Your task to perform on an android device: turn off airplane mode Image 0: 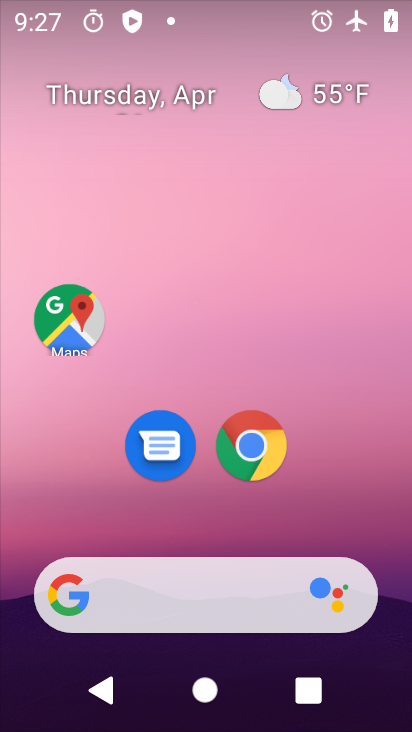
Step 0: drag from (372, 508) to (365, 5)
Your task to perform on an android device: turn off airplane mode Image 1: 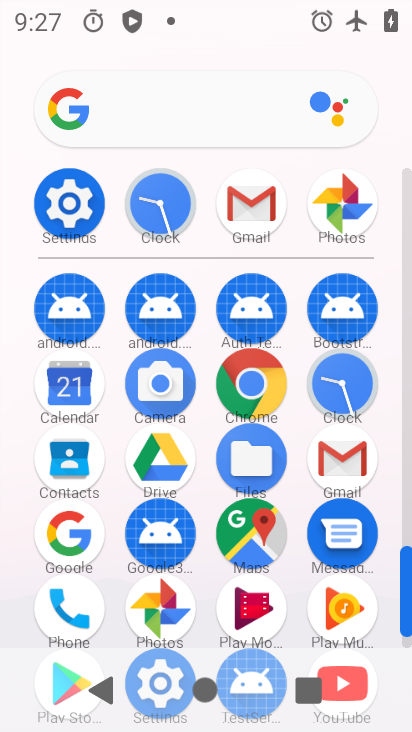
Step 1: click (76, 205)
Your task to perform on an android device: turn off airplane mode Image 2: 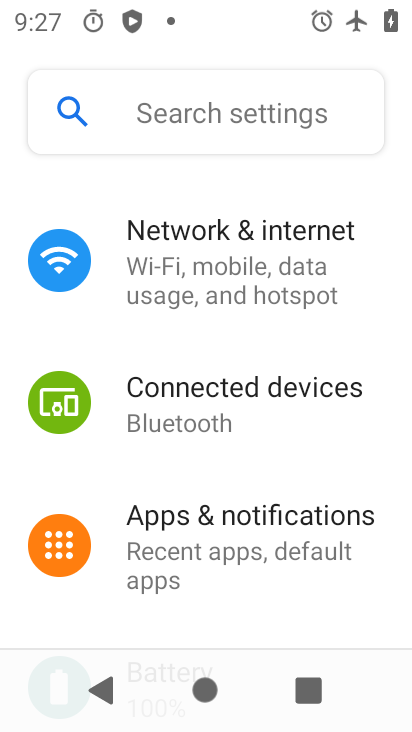
Step 2: click (212, 285)
Your task to perform on an android device: turn off airplane mode Image 3: 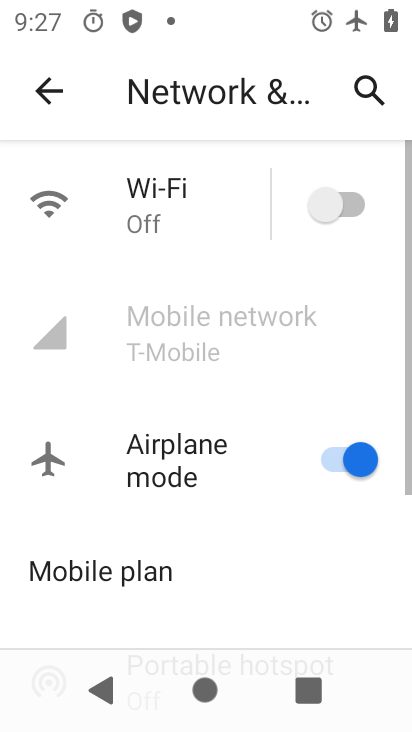
Step 3: click (349, 467)
Your task to perform on an android device: turn off airplane mode Image 4: 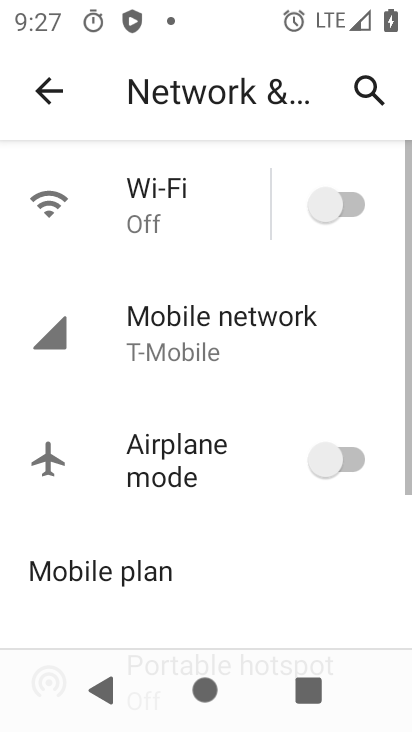
Step 4: task complete